Your task to perform on an android device: Turn off the flashlight Image 0: 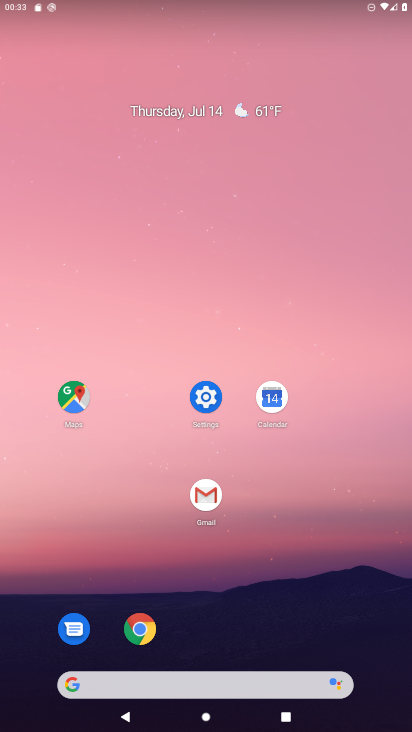
Step 0: drag from (367, 377) to (330, 69)
Your task to perform on an android device: Turn off the flashlight Image 1: 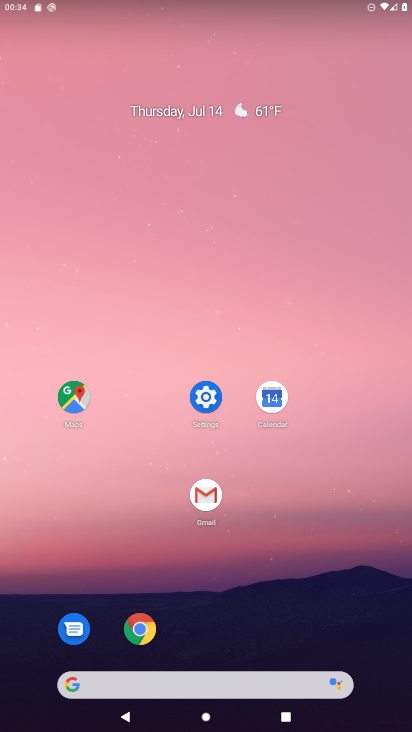
Step 1: drag from (385, 697) to (385, 152)
Your task to perform on an android device: Turn off the flashlight Image 2: 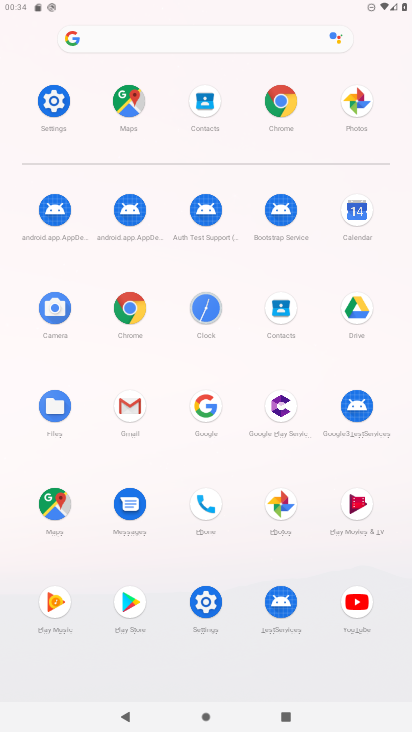
Step 2: click (48, 104)
Your task to perform on an android device: Turn off the flashlight Image 3: 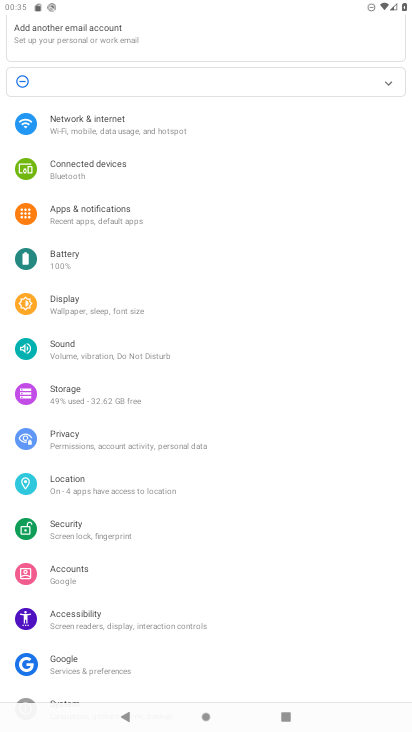
Step 3: click (71, 307)
Your task to perform on an android device: Turn off the flashlight Image 4: 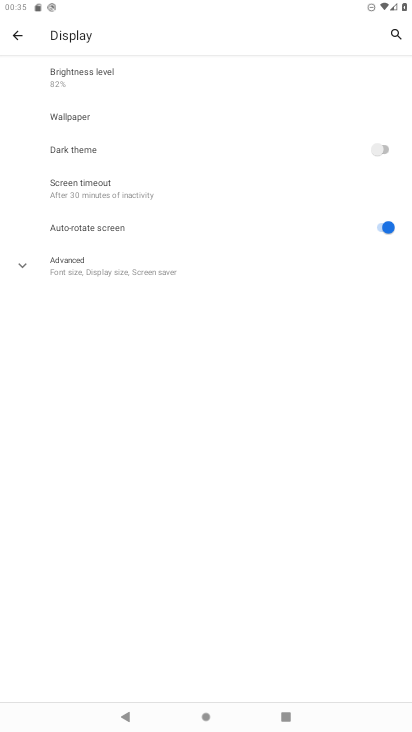
Step 4: click (84, 187)
Your task to perform on an android device: Turn off the flashlight Image 5: 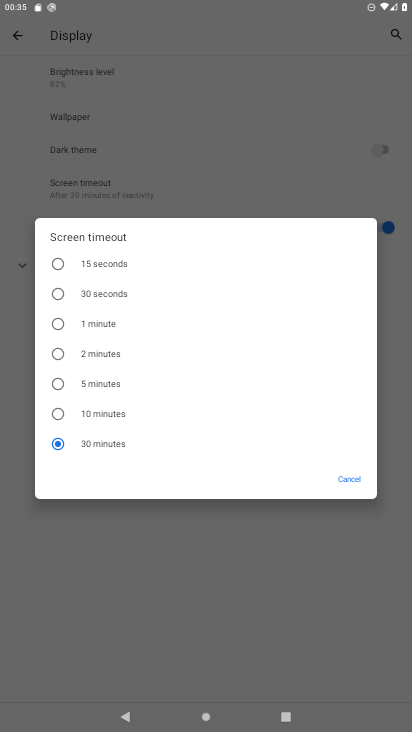
Step 5: task complete